Your task to perform on an android device: Go to ESPN.com Image 0: 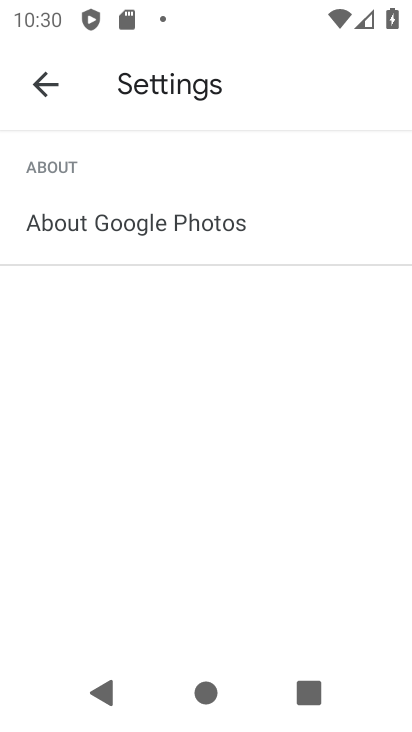
Step 0: drag from (228, 560) to (184, 266)
Your task to perform on an android device: Go to ESPN.com Image 1: 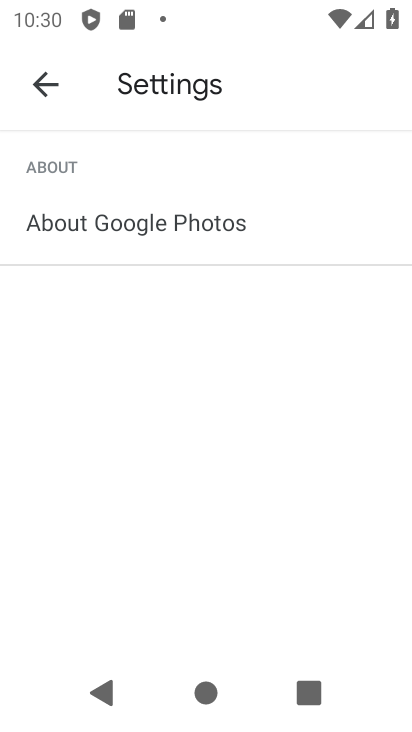
Step 1: press home button
Your task to perform on an android device: Go to ESPN.com Image 2: 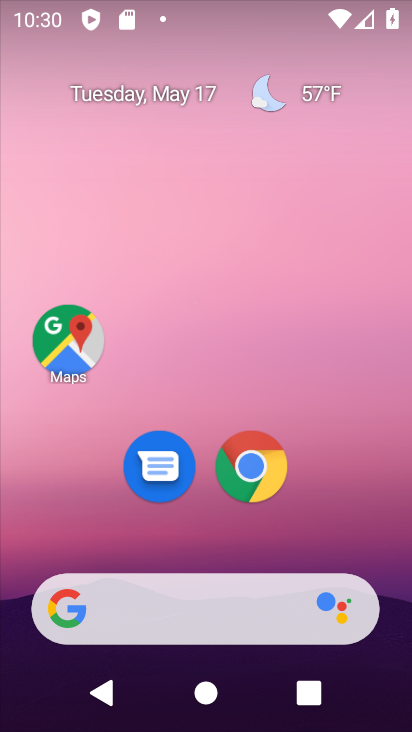
Step 2: click (256, 469)
Your task to perform on an android device: Go to ESPN.com Image 3: 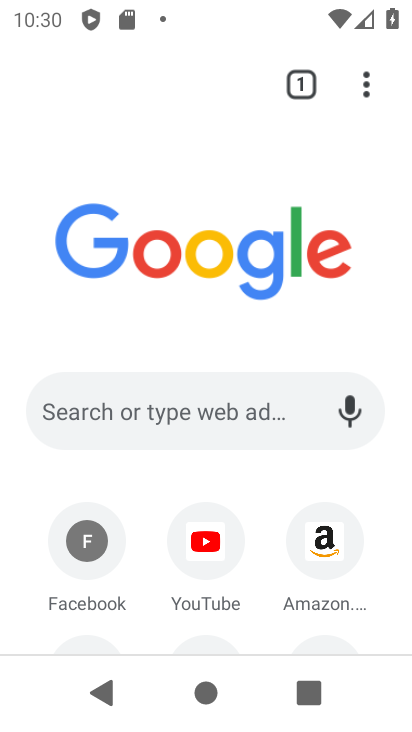
Step 3: drag from (193, 560) to (156, 190)
Your task to perform on an android device: Go to ESPN.com Image 4: 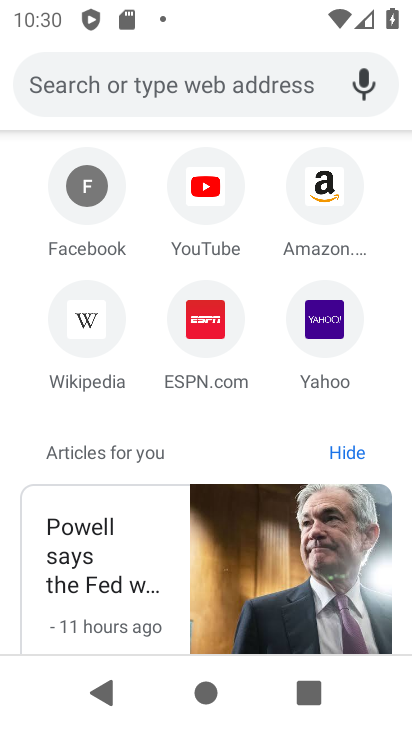
Step 4: click (198, 347)
Your task to perform on an android device: Go to ESPN.com Image 5: 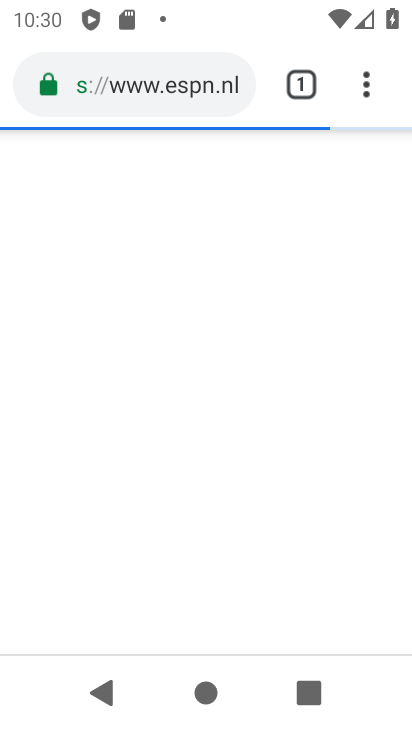
Step 5: task complete